Your task to perform on an android device: What is the recent news? Image 0: 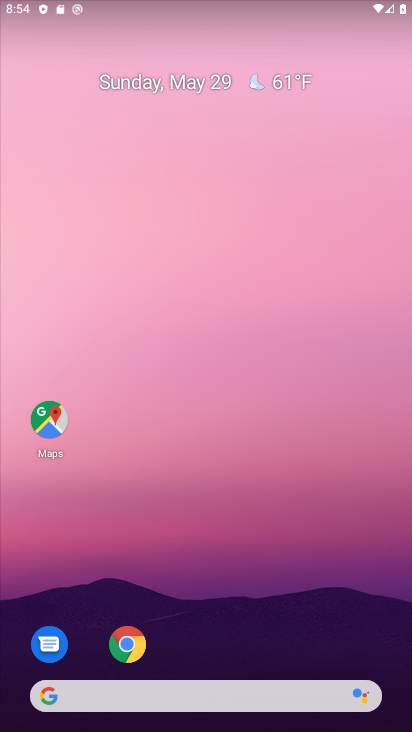
Step 0: drag from (48, 298) to (407, 316)
Your task to perform on an android device: What is the recent news? Image 1: 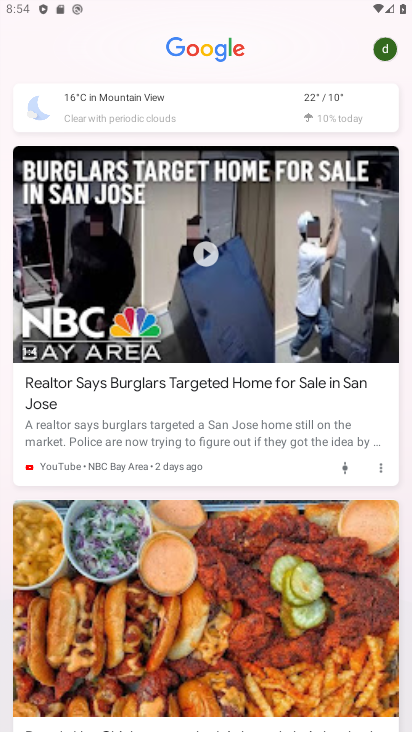
Step 1: task complete